Your task to perform on an android device: View the shopping cart on walmart. Add bose soundlink mini to the cart on walmart, then select checkout. Image 0: 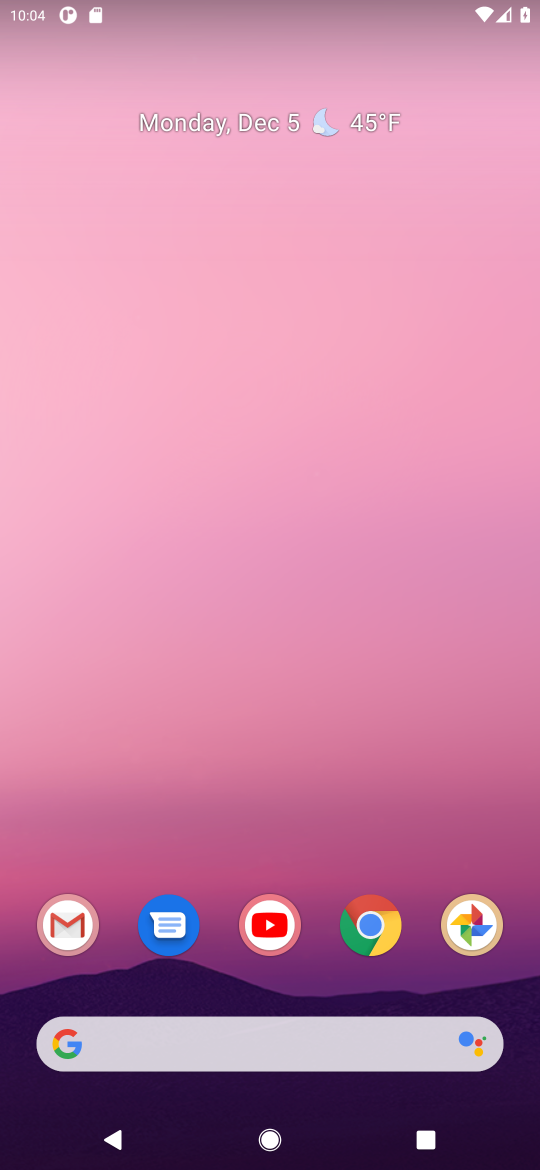
Step 0: click (373, 926)
Your task to perform on an android device: View the shopping cart on walmart. Add bose soundlink mini to the cart on walmart, then select checkout. Image 1: 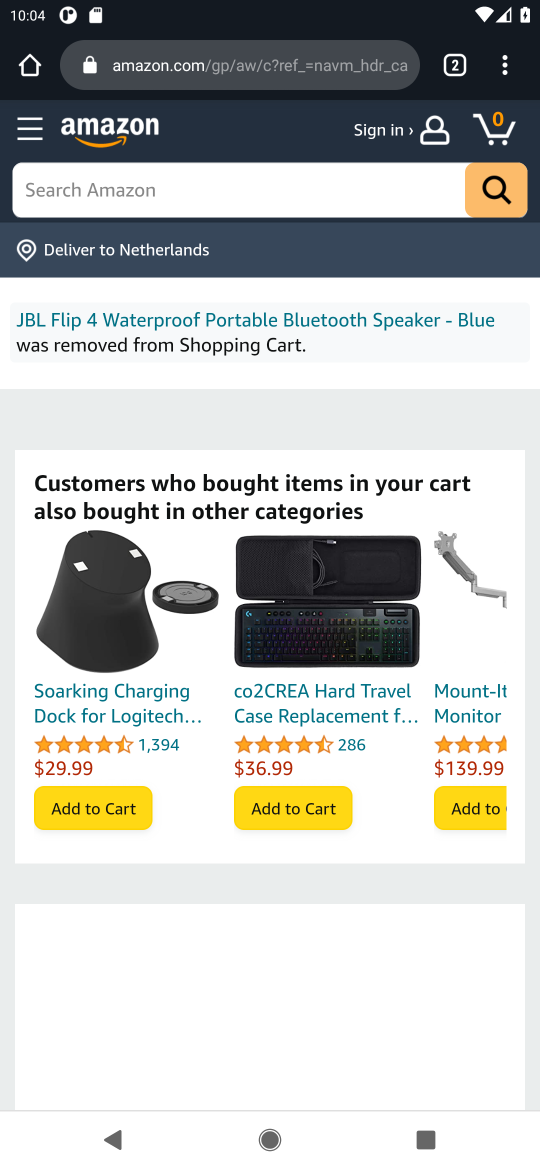
Step 1: click (243, 77)
Your task to perform on an android device: View the shopping cart on walmart. Add bose soundlink mini to the cart on walmart, then select checkout. Image 2: 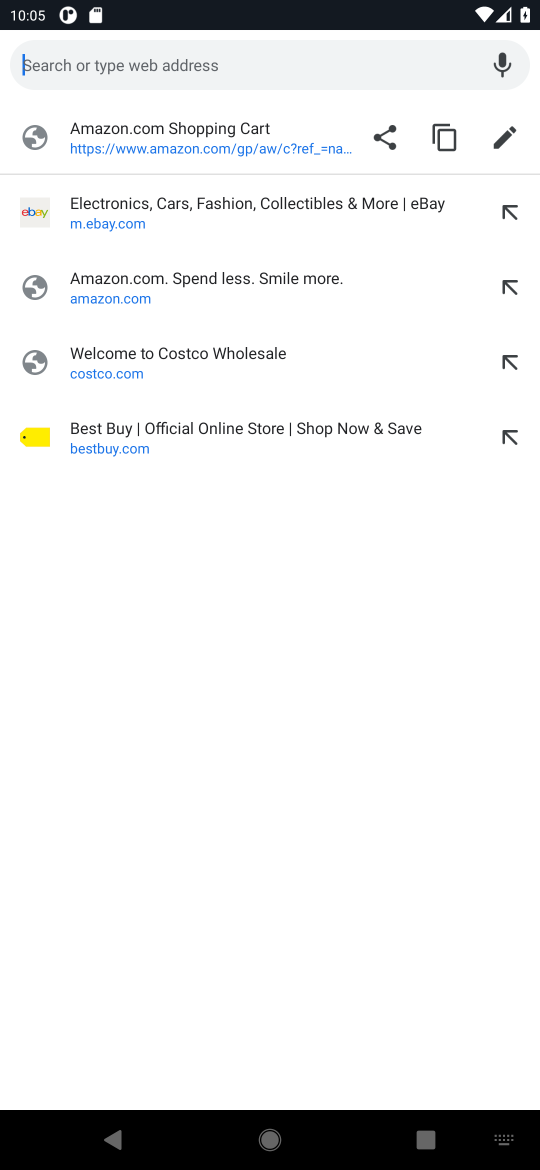
Step 2: type "walmart.com"
Your task to perform on an android device: View the shopping cart on walmart. Add bose soundlink mini to the cart on walmart, then select checkout. Image 3: 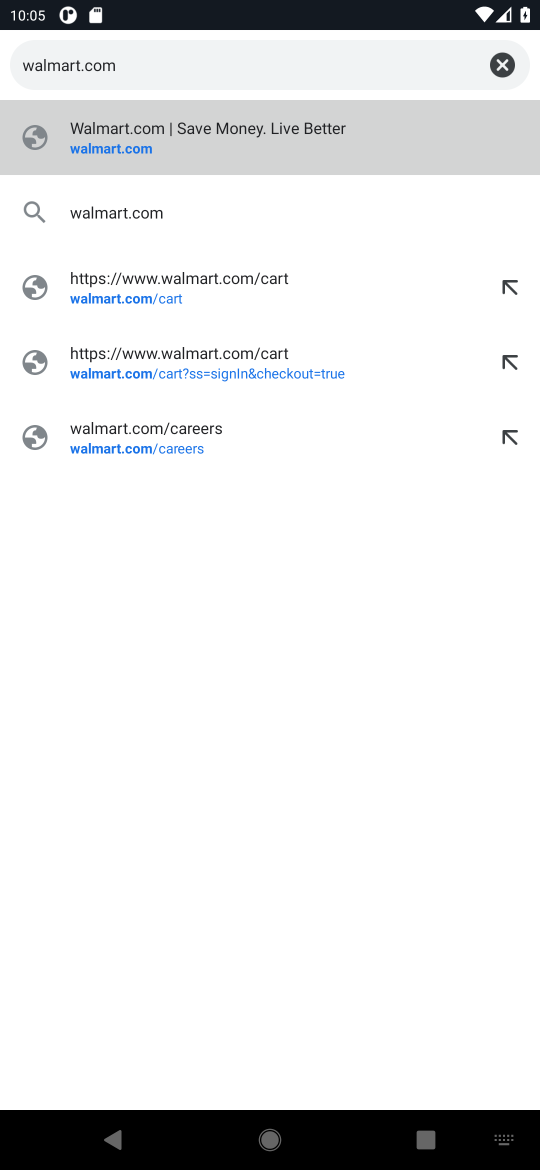
Step 3: click (113, 155)
Your task to perform on an android device: View the shopping cart on walmart. Add bose soundlink mini to the cart on walmart, then select checkout. Image 4: 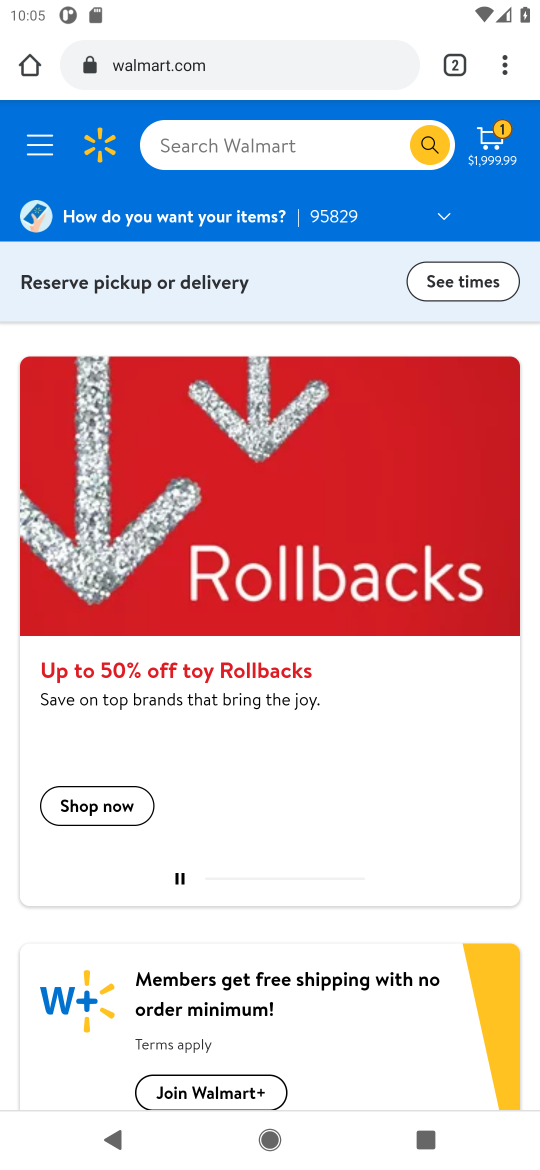
Step 4: click (489, 152)
Your task to perform on an android device: View the shopping cart on walmart. Add bose soundlink mini to the cart on walmart, then select checkout. Image 5: 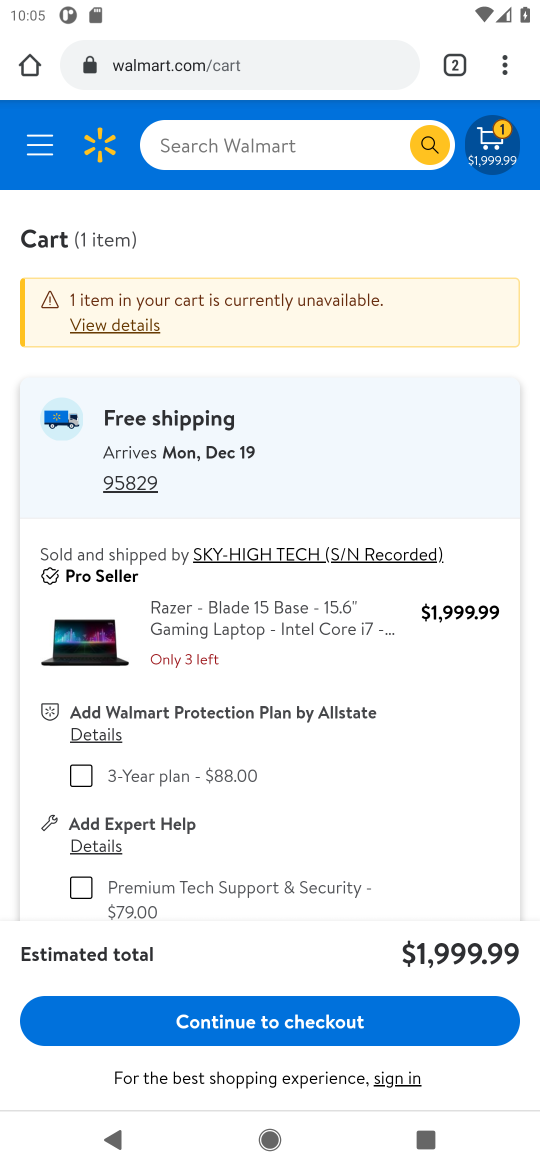
Step 5: click (239, 161)
Your task to perform on an android device: View the shopping cart on walmart. Add bose soundlink mini to the cart on walmart, then select checkout. Image 6: 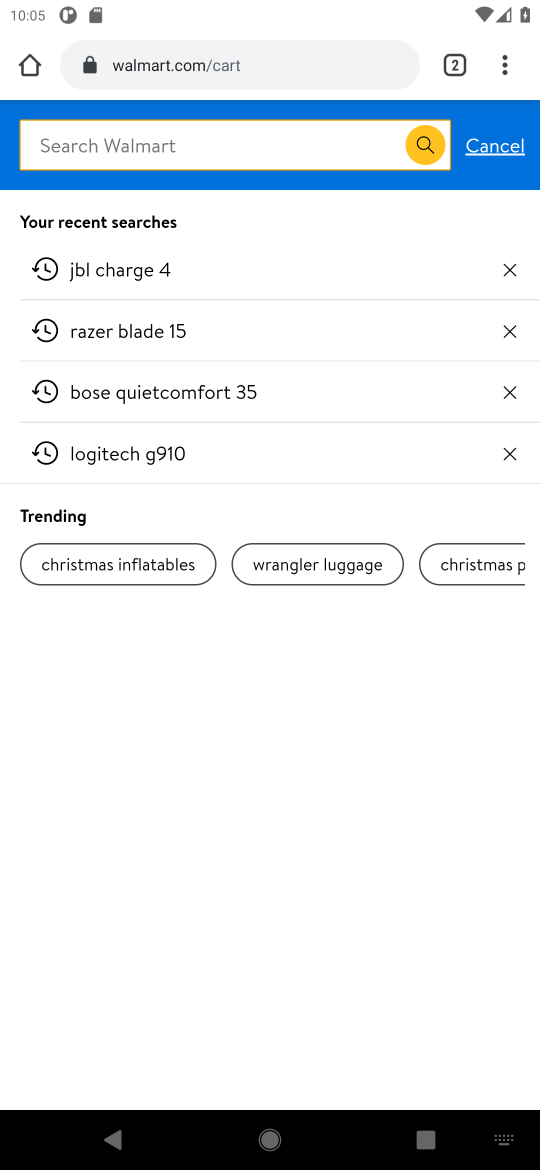
Step 6: type "bose soundlink mini "
Your task to perform on an android device: View the shopping cart on walmart. Add bose soundlink mini to the cart on walmart, then select checkout. Image 7: 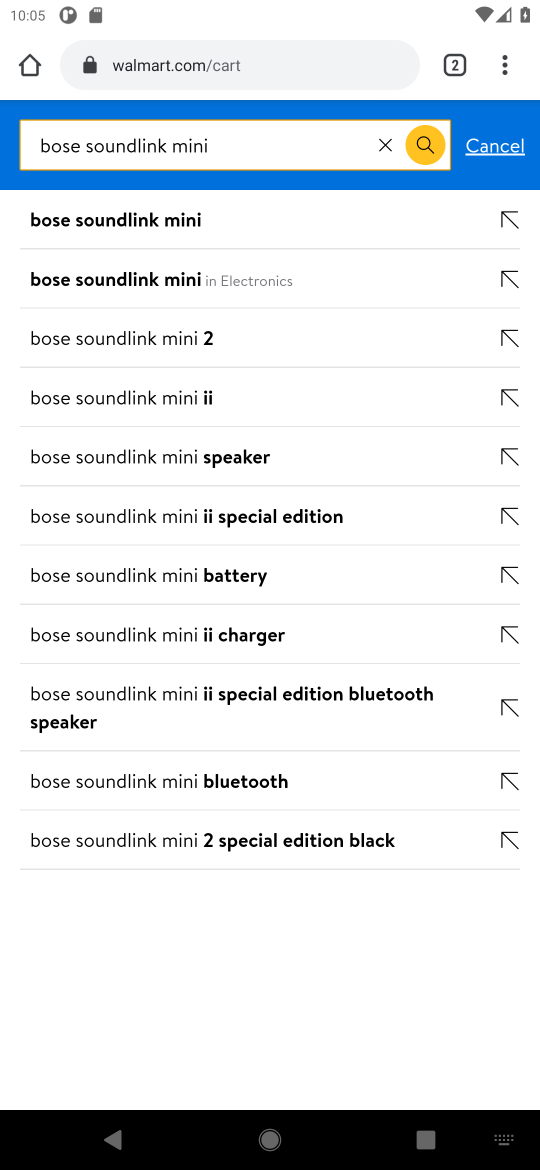
Step 7: click (95, 232)
Your task to perform on an android device: View the shopping cart on walmart. Add bose soundlink mini to the cart on walmart, then select checkout. Image 8: 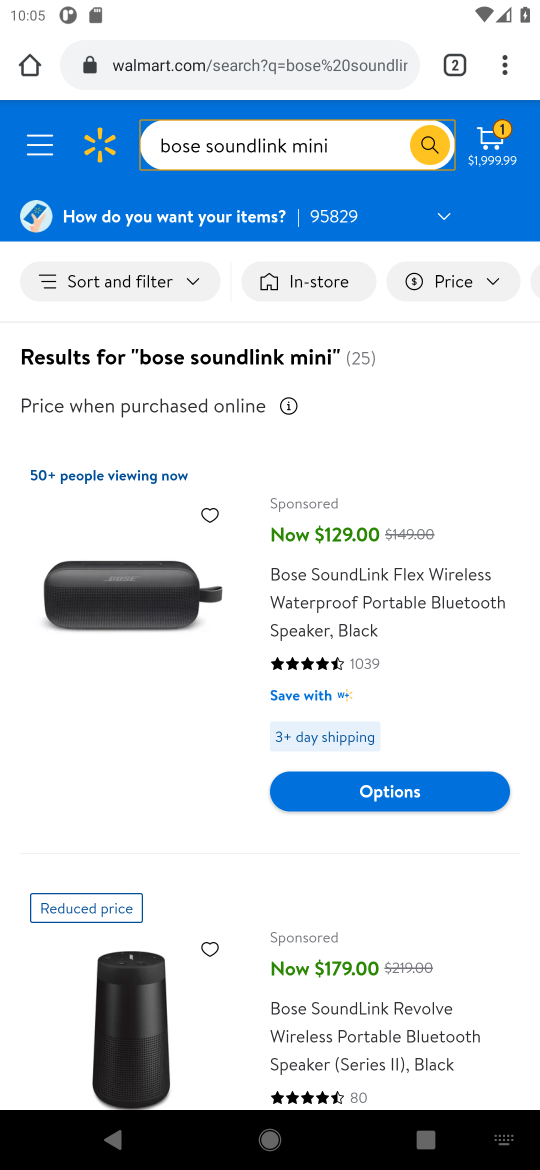
Step 8: task complete